Your task to perform on an android device: Play the last video I watched on Youtube Image 0: 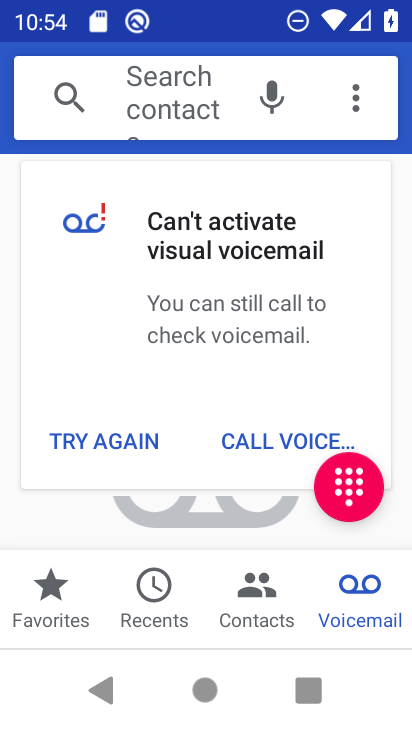
Step 0: press home button
Your task to perform on an android device: Play the last video I watched on Youtube Image 1: 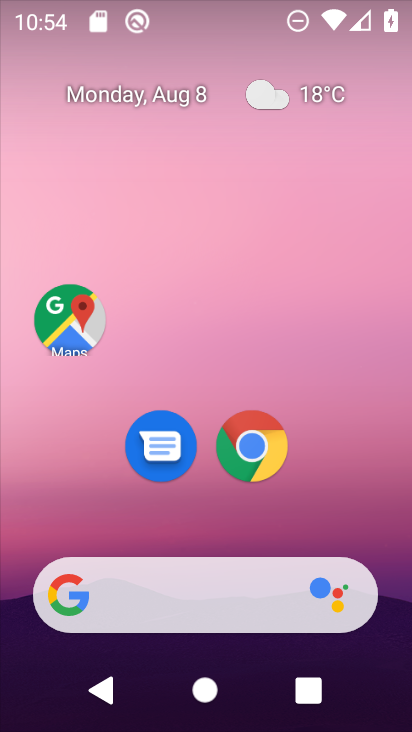
Step 1: drag from (396, 638) to (353, 160)
Your task to perform on an android device: Play the last video I watched on Youtube Image 2: 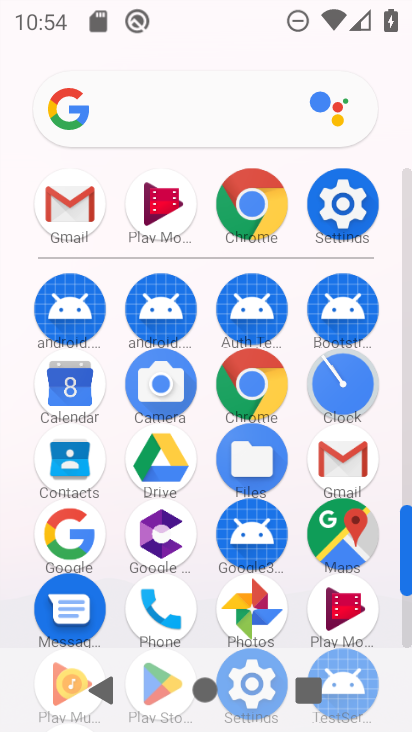
Step 2: click (408, 627)
Your task to perform on an android device: Play the last video I watched on Youtube Image 3: 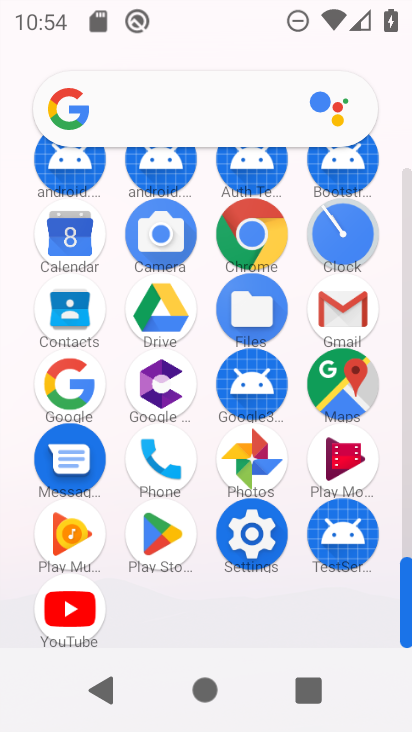
Step 3: click (65, 606)
Your task to perform on an android device: Play the last video I watched on Youtube Image 4: 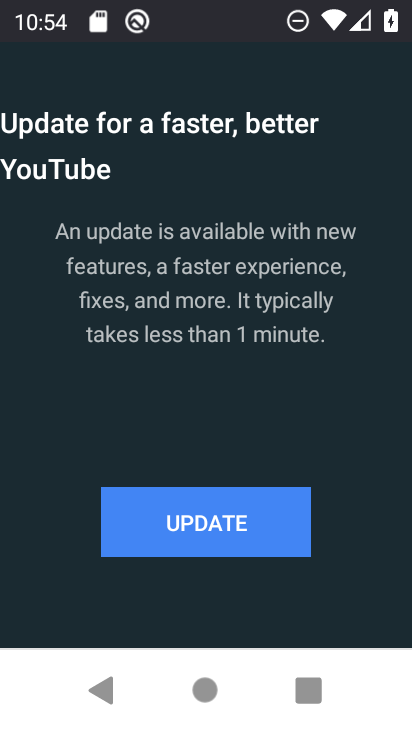
Step 4: click (210, 531)
Your task to perform on an android device: Play the last video I watched on Youtube Image 5: 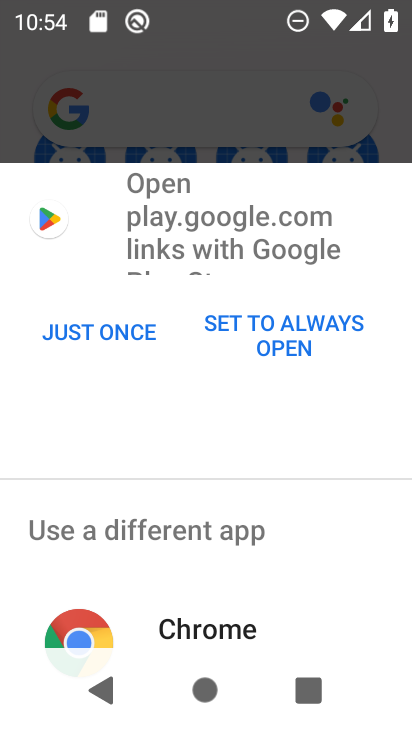
Step 5: click (107, 336)
Your task to perform on an android device: Play the last video I watched on Youtube Image 6: 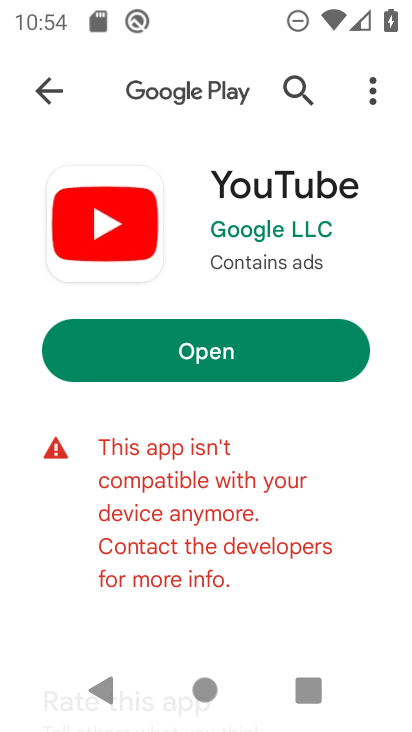
Step 6: click (197, 352)
Your task to perform on an android device: Play the last video I watched on Youtube Image 7: 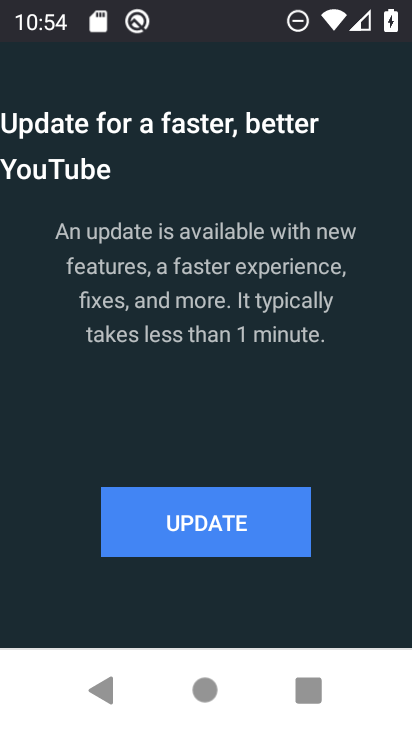
Step 7: task complete